Your task to perform on an android device: Open Google Maps Image 0: 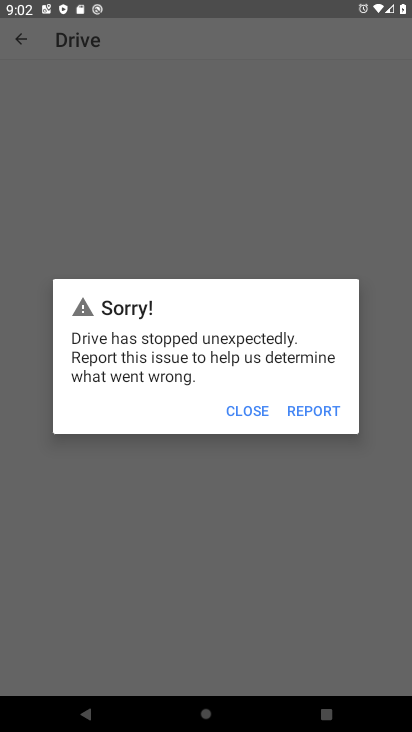
Step 0: press home button
Your task to perform on an android device: Open Google Maps Image 1: 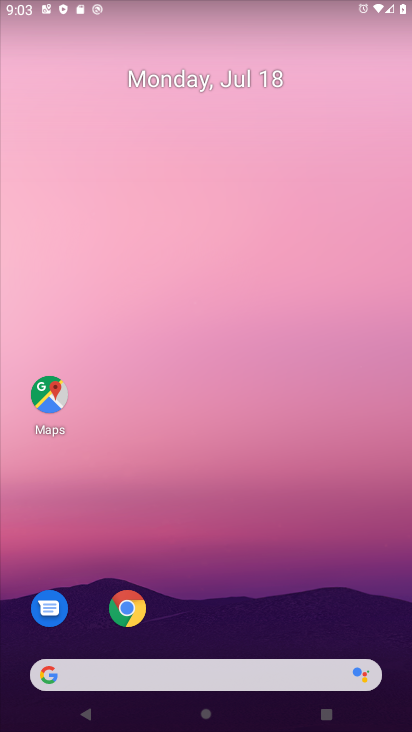
Step 1: drag from (239, 721) to (254, 118)
Your task to perform on an android device: Open Google Maps Image 2: 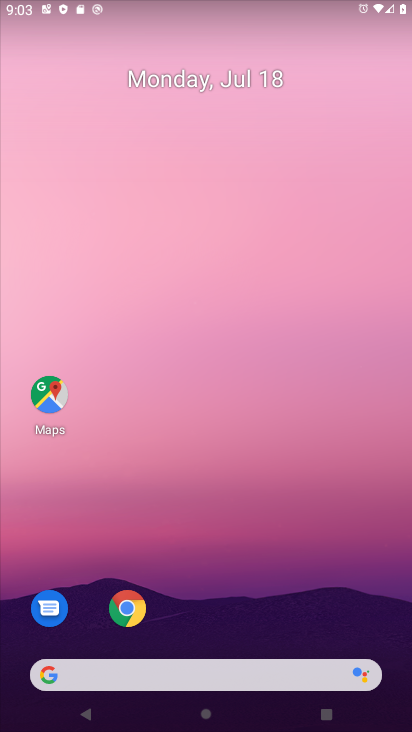
Step 2: drag from (244, 728) to (244, 587)
Your task to perform on an android device: Open Google Maps Image 3: 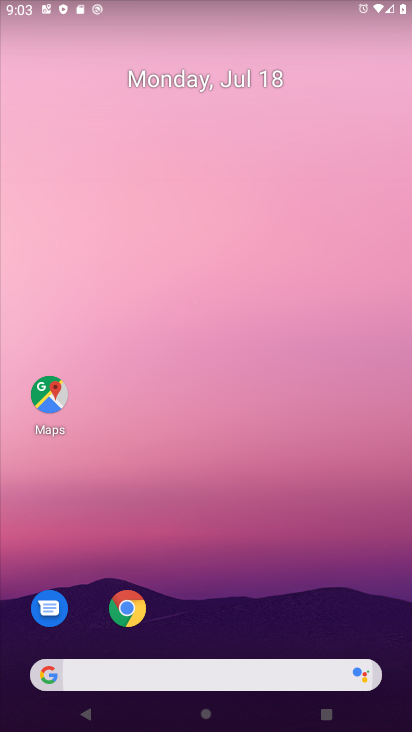
Step 3: click (249, 197)
Your task to perform on an android device: Open Google Maps Image 4: 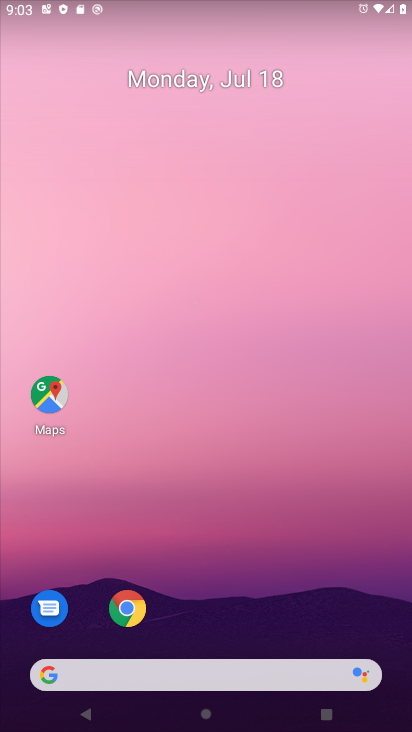
Step 4: drag from (246, 626) to (245, 93)
Your task to perform on an android device: Open Google Maps Image 5: 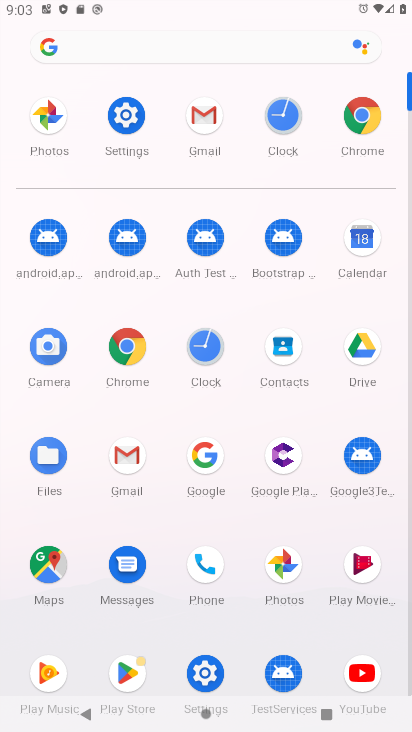
Step 5: click (38, 569)
Your task to perform on an android device: Open Google Maps Image 6: 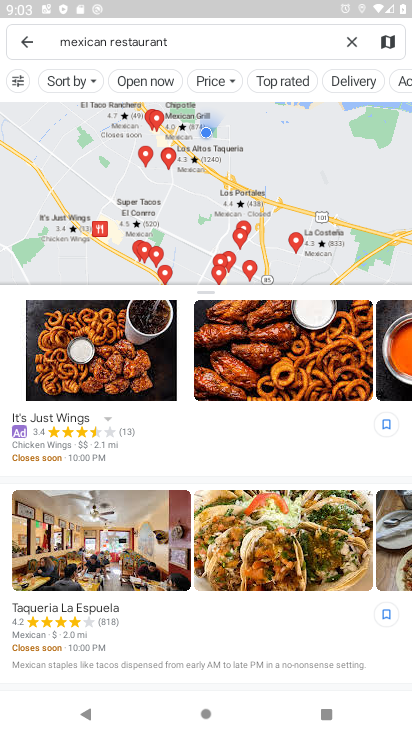
Step 6: task complete